Your task to perform on an android device: turn on translation in the chrome app Image 0: 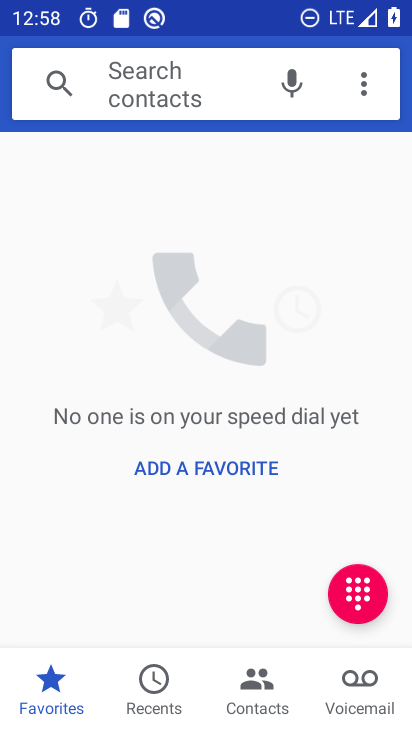
Step 0: press home button
Your task to perform on an android device: turn on translation in the chrome app Image 1: 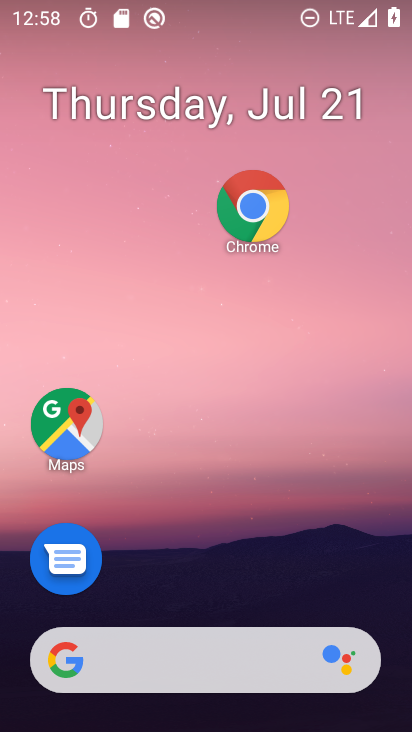
Step 1: drag from (192, 634) to (239, 149)
Your task to perform on an android device: turn on translation in the chrome app Image 2: 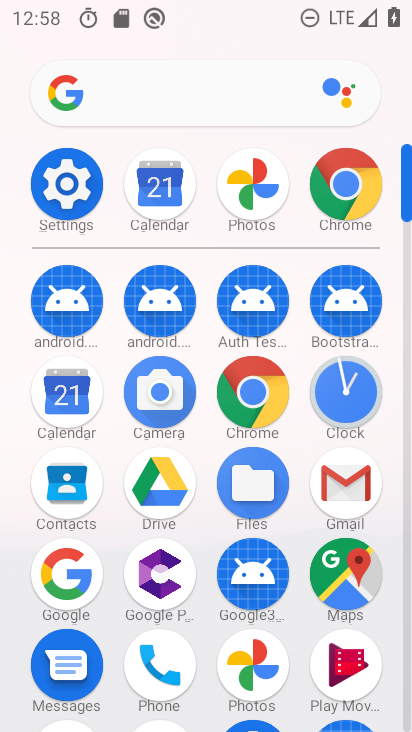
Step 2: click (238, 420)
Your task to perform on an android device: turn on translation in the chrome app Image 3: 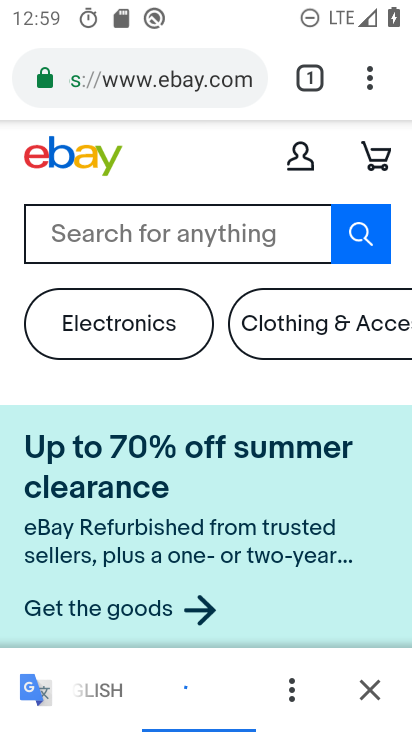
Step 3: click (376, 89)
Your task to perform on an android device: turn on translation in the chrome app Image 4: 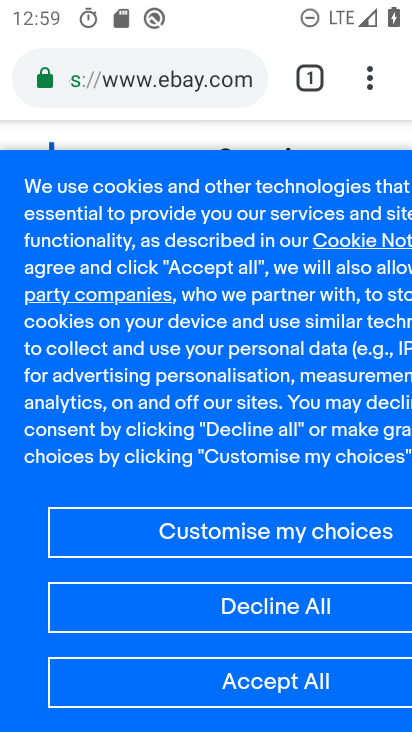
Step 4: click (373, 86)
Your task to perform on an android device: turn on translation in the chrome app Image 5: 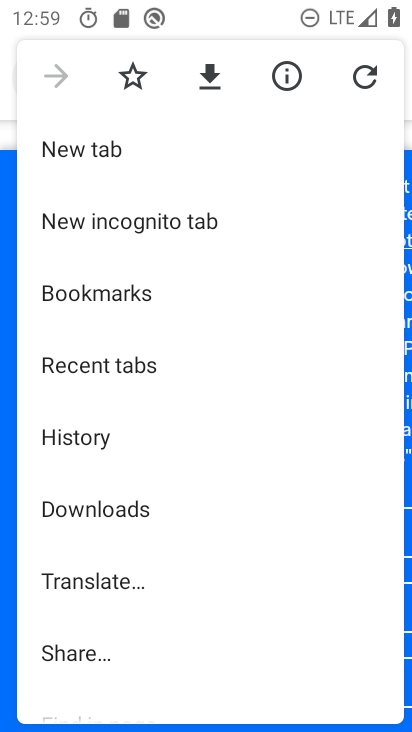
Step 5: drag from (179, 601) to (208, 147)
Your task to perform on an android device: turn on translation in the chrome app Image 6: 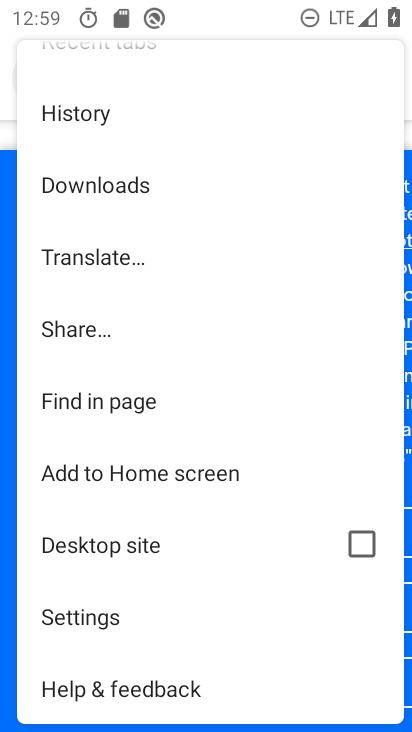
Step 6: click (132, 254)
Your task to perform on an android device: turn on translation in the chrome app Image 7: 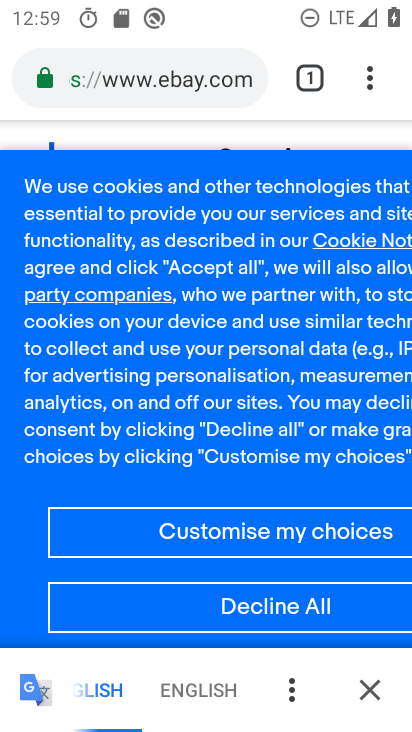
Step 7: click (297, 687)
Your task to perform on an android device: turn on translation in the chrome app Image 8: 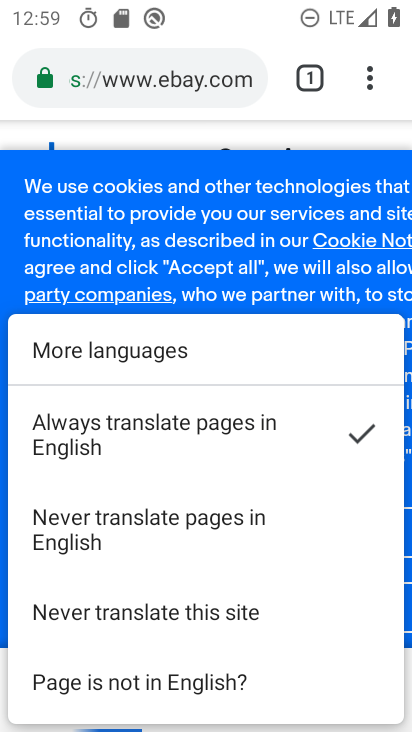
Step 8: task complete